Your task to perform on an android device: change notification settings in the gmail app Image 0: 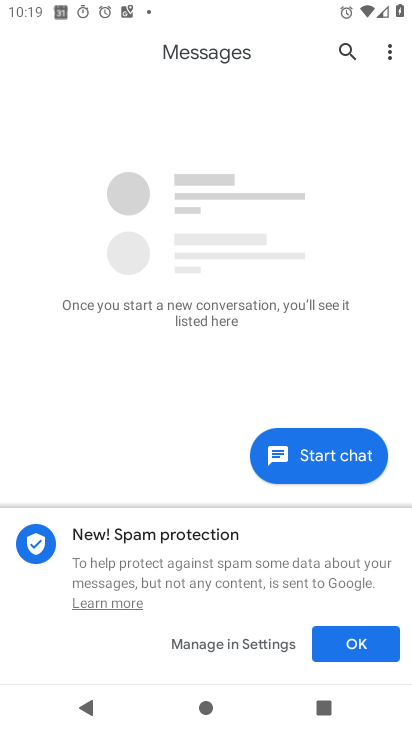
Step 0: press home button
Your task to perform on an android device: change notification settings in the gmail app Image 1: 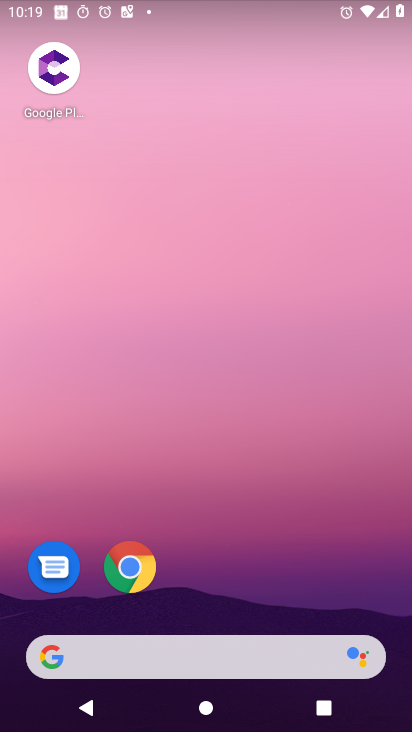
Step 1: drag from (199, 605) to (294, 11)
Your task to perform on an android device: change notification settings in the gmail app Image 2: 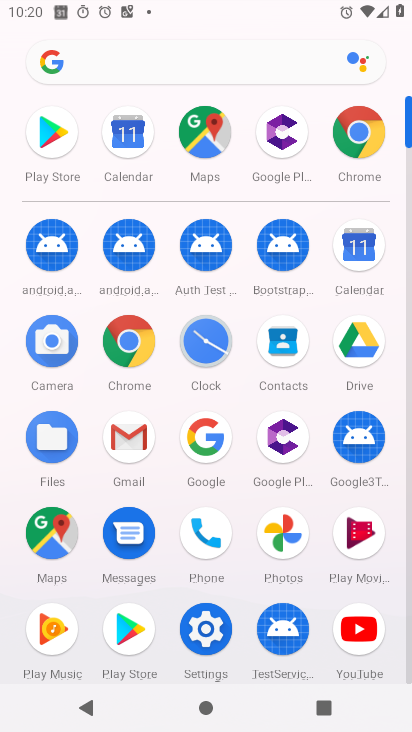
Step 2: click (147, 445)
Your task to perform on an android device: change notification settings in the gmail app Image 3: 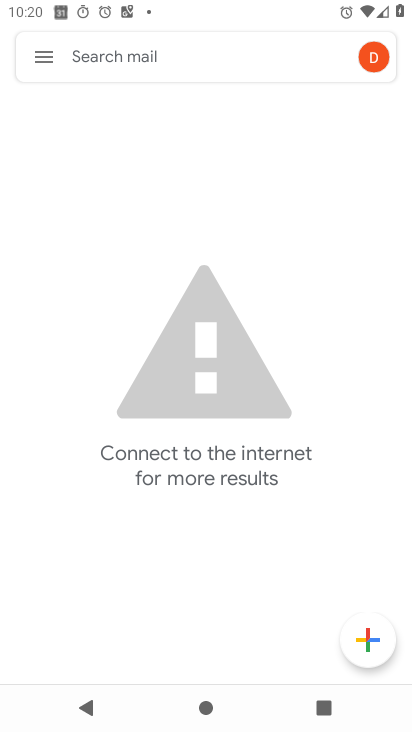
Step 3: click (45, 63)
Your task to perform on an android device: change notification settings in the gmail app Image 4: 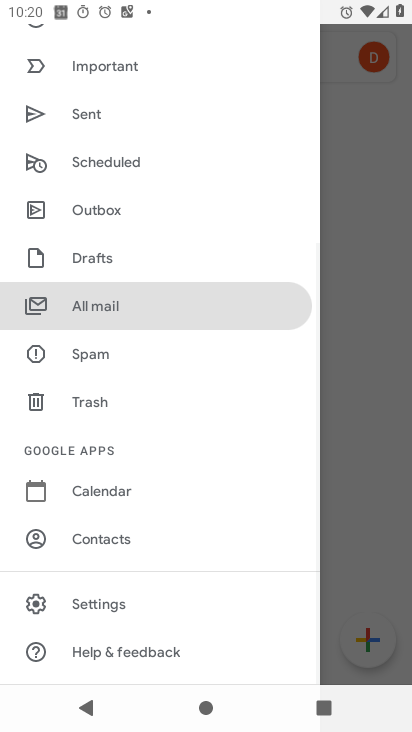
Step 4: click (102, 615)
Your task to perform on an android device: change notification settings in the gmail app Image 5: 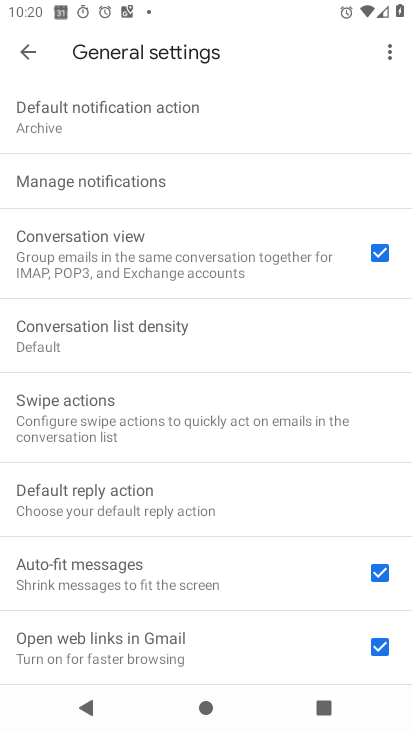
Step 5: click (126, 182)
Your task to perform on an android device: change notification settings in the gmail app Image 6: 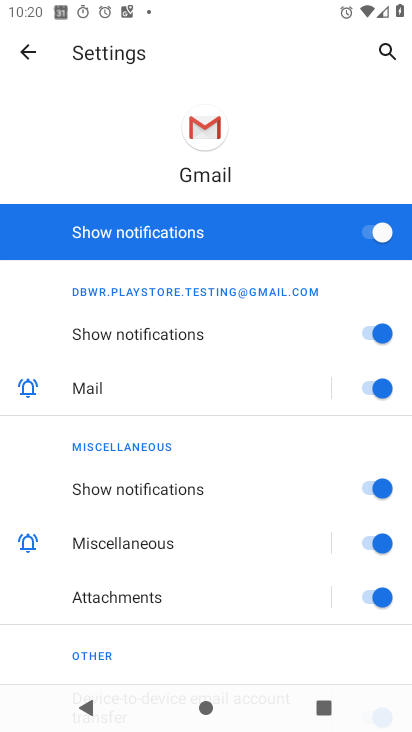
Step 6: click (352, 237)
Your task to perform on an android device: change notification settings in the gmail app Image 7: 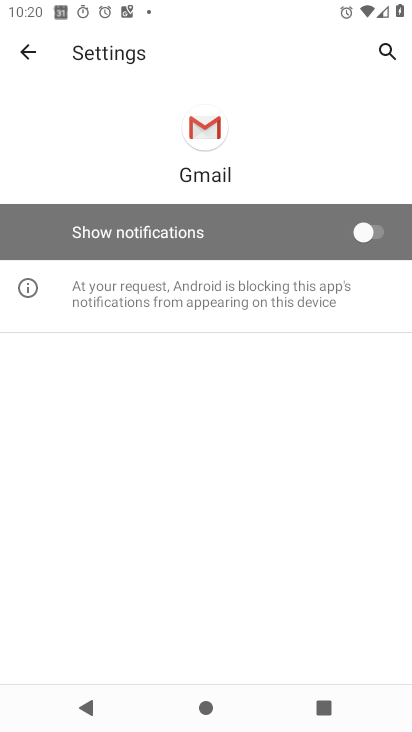
Step 7: task complete